Your task to perform on an android device: Open Wikipedia Image 0: 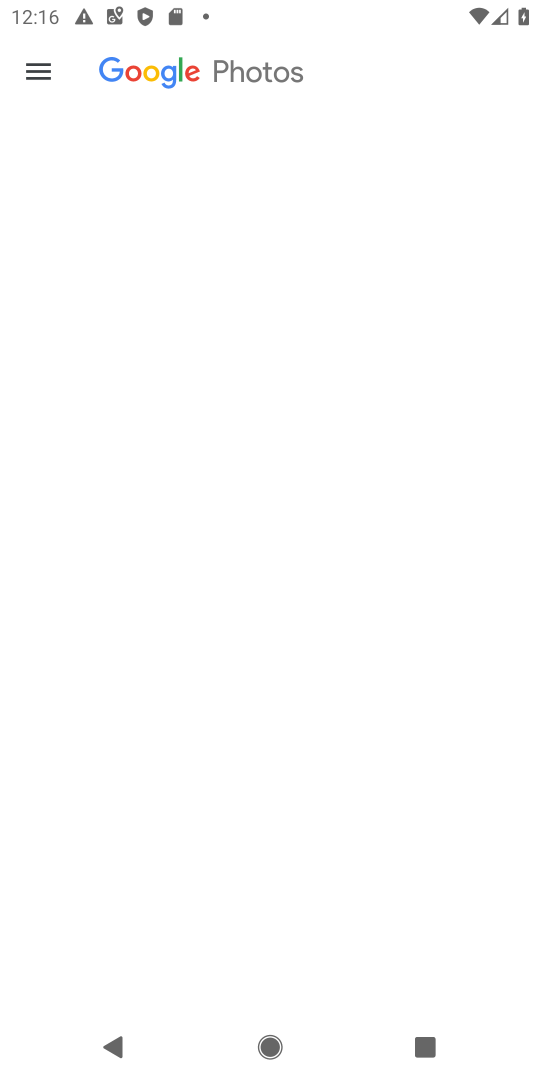
Step 0: press home button
Your task to perform on an android device: Open Wikipedia Image 1: 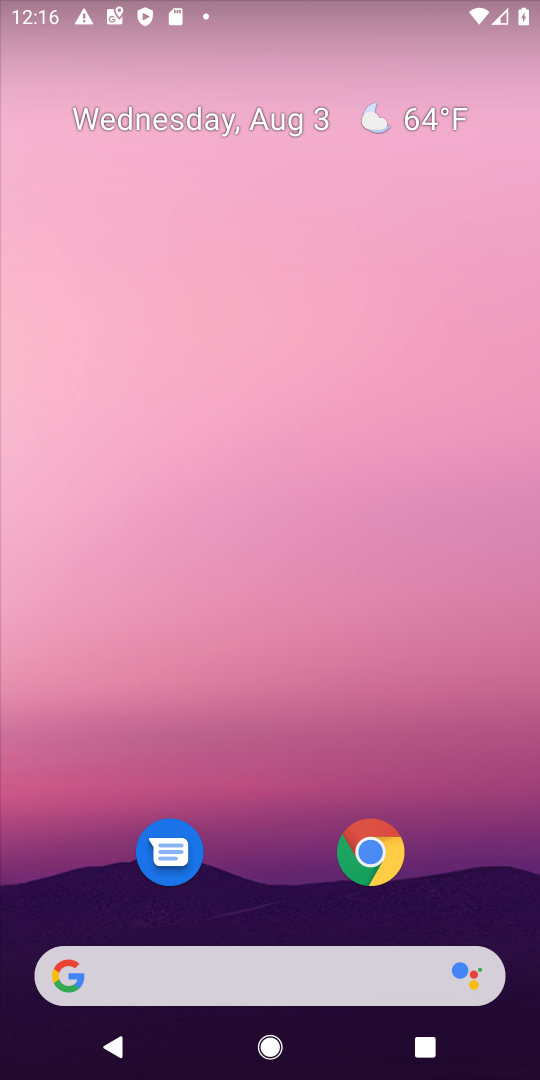
Step 1: drag from (476, 807) to (264, 144)
Your task to perform on an android device: Open Wikipedia Image 2: 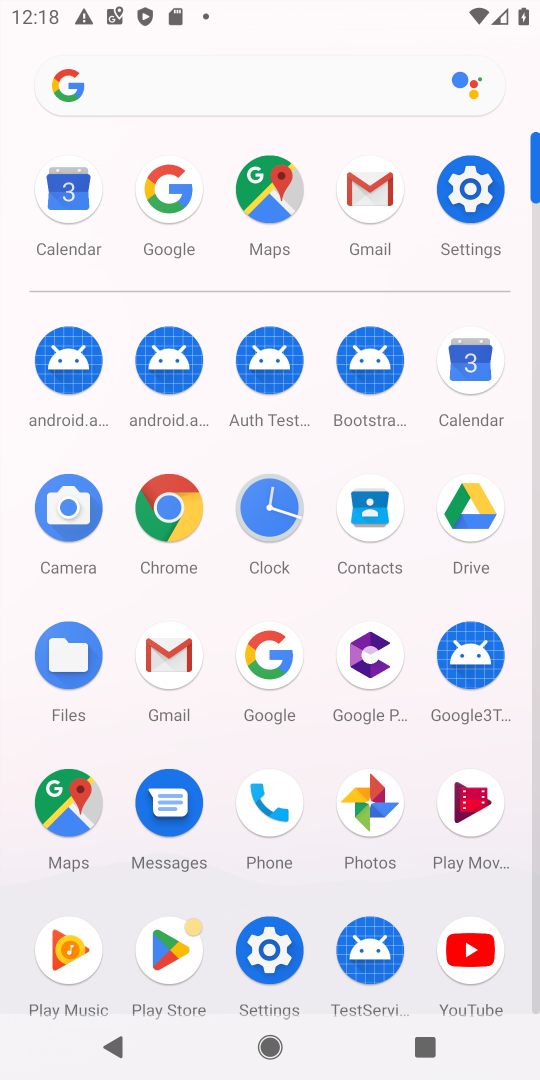
Step 2: click (268, 675)
Your task to perform on an android device: Open Wikipedia Image 3: 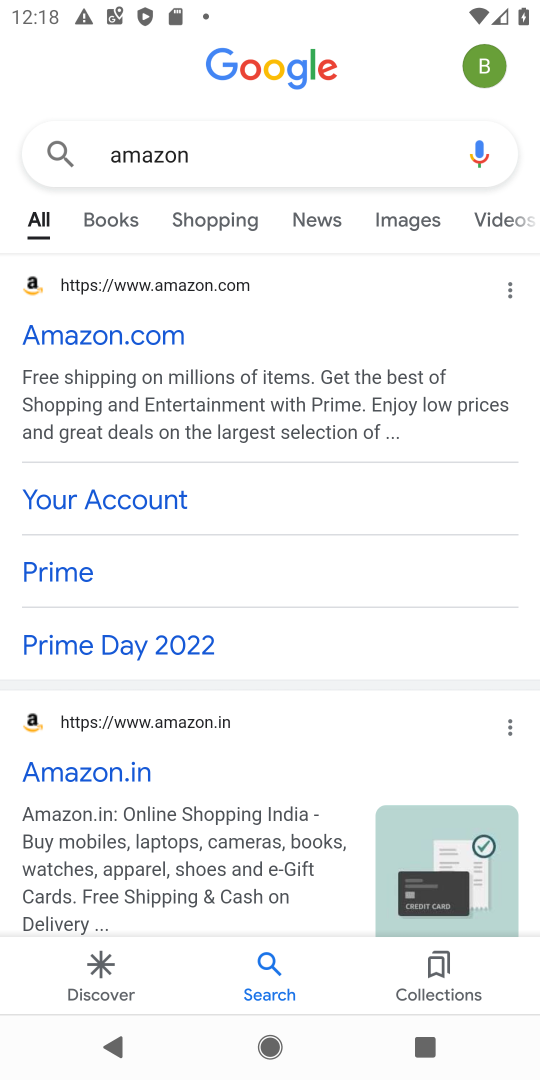
Step 3: press back button
Your task to perform on an android device: Open Wikipedia Image 4: 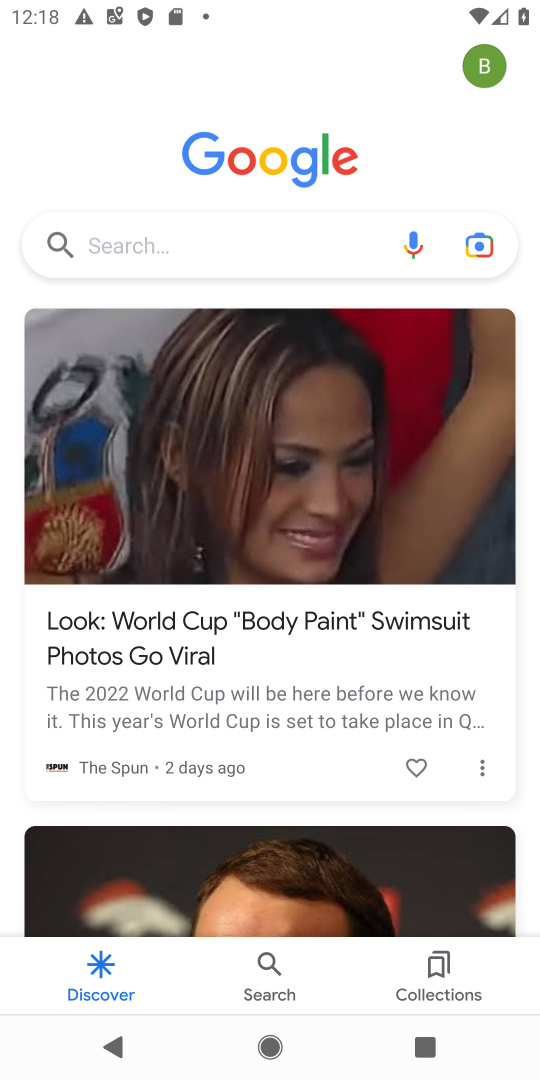
Step 4: click (153, 248)
Your task to perform on an android device: Open Wikipedia Image 5: 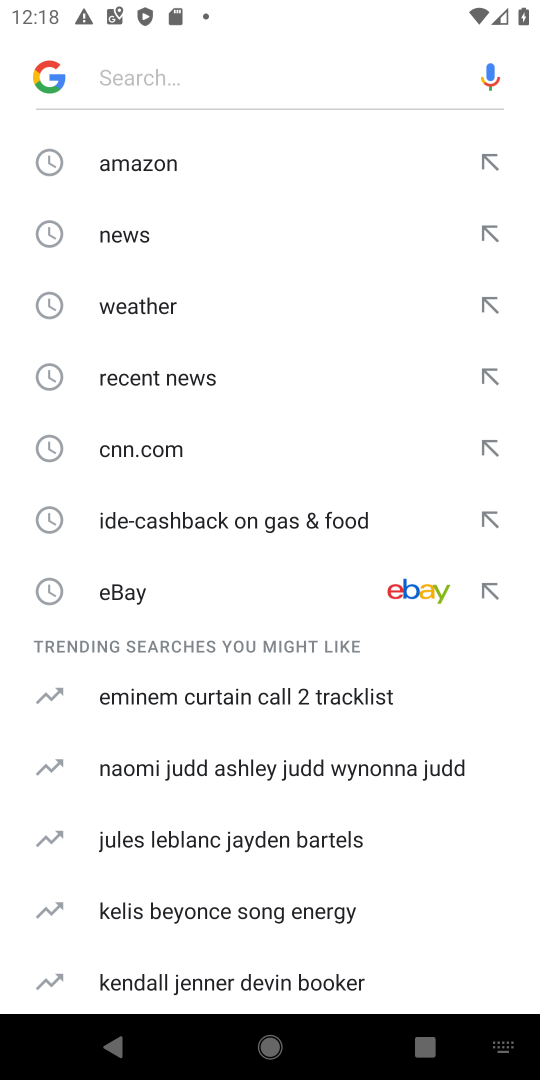
Step 5: type "Wikipedia"
Your task to perform on an android device: Open Wikipedia Image 6: 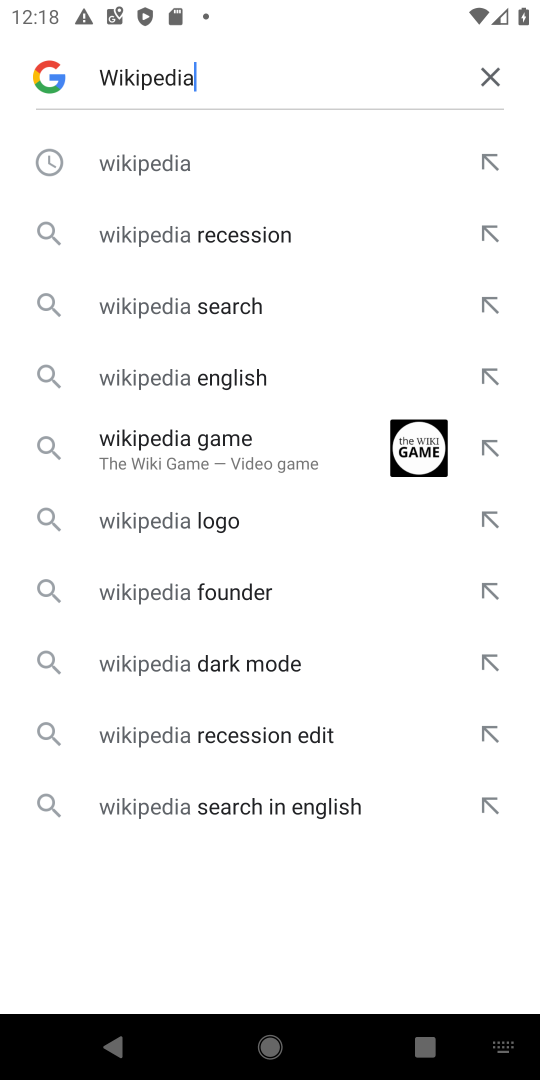
Step 6: click (166, 161)
Your task to perform on an android device: Open Wikipedia Image 7: 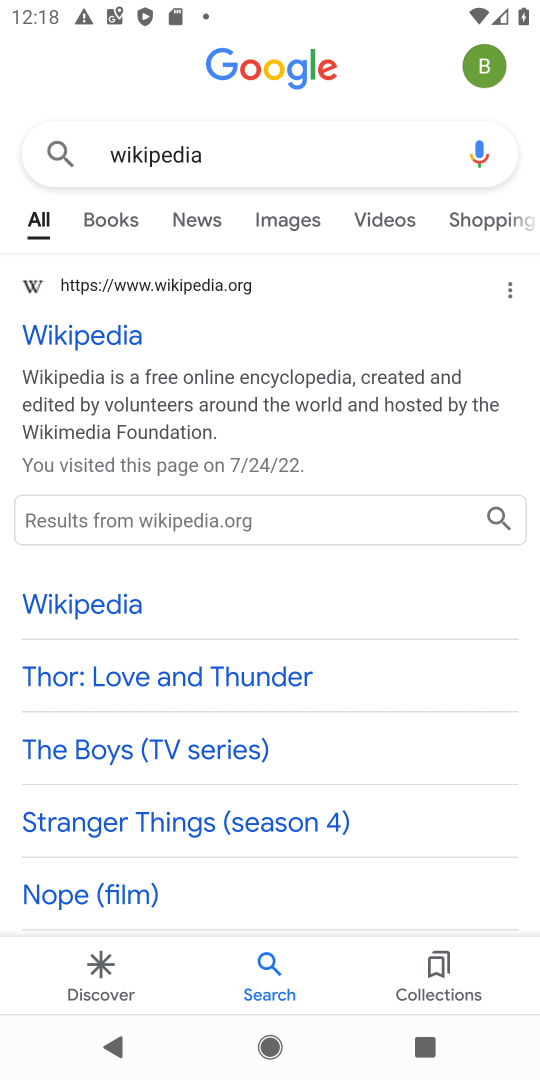
Step 7: task complete